Your task to perform on an android device: Open settings Image 0: 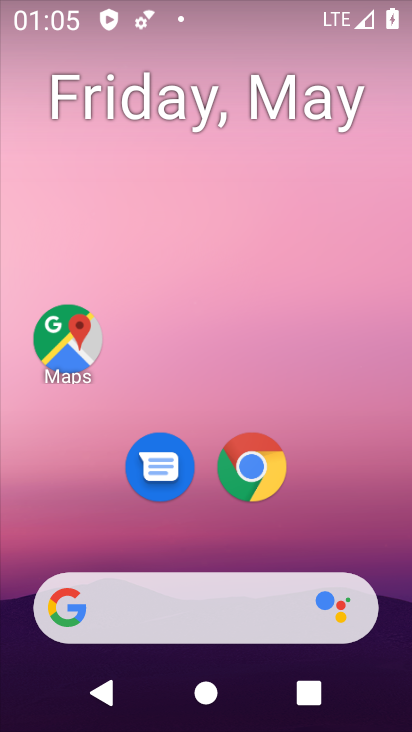
Step 0: drag from (284, 656) to (296, 117)
Your task to perform on an android device: Open settings Image 1: 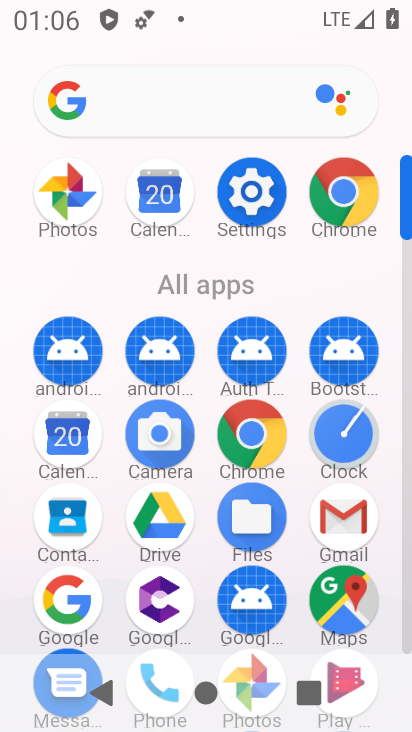
Step 1: click (241, 212)
Your task to perform on an android device: Open settings Image 2: 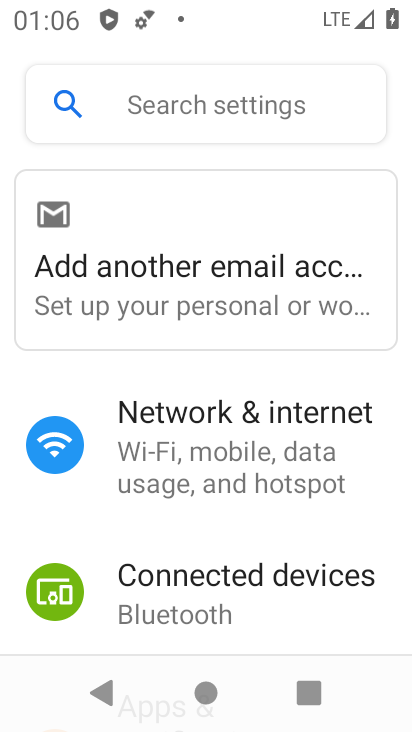
Step 2: task complete